Your task to perform on an android device: Do I have any events today? Image 0: 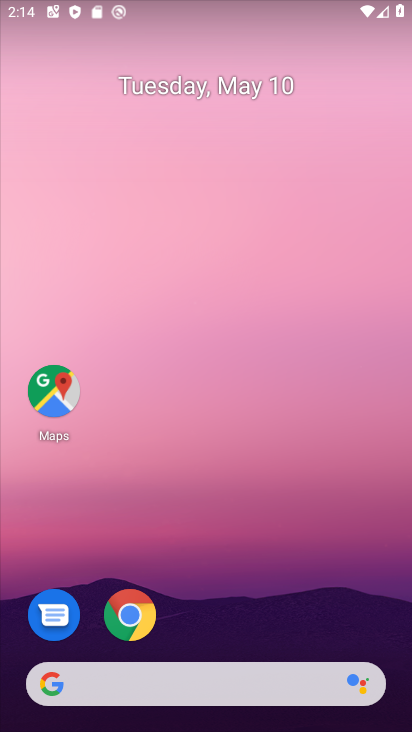
Step 0: drag from (289, 584) to (288, 156)
Your task to perform on an android device: Do I have any events today? Image 1: 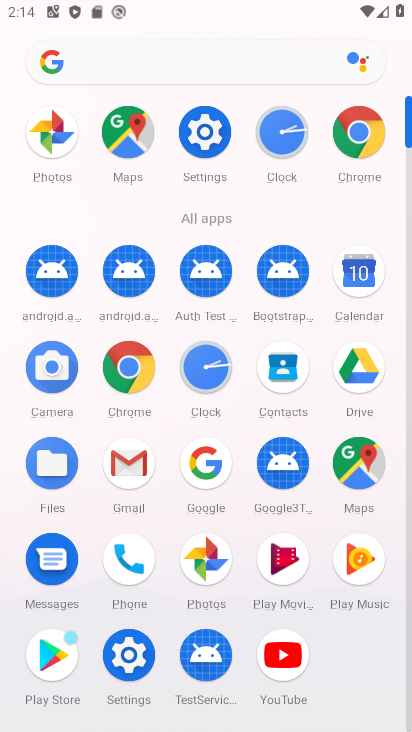
Step 1: click (359, 272)
Your task to perform on an android device: Do I have any events today? Image 2: 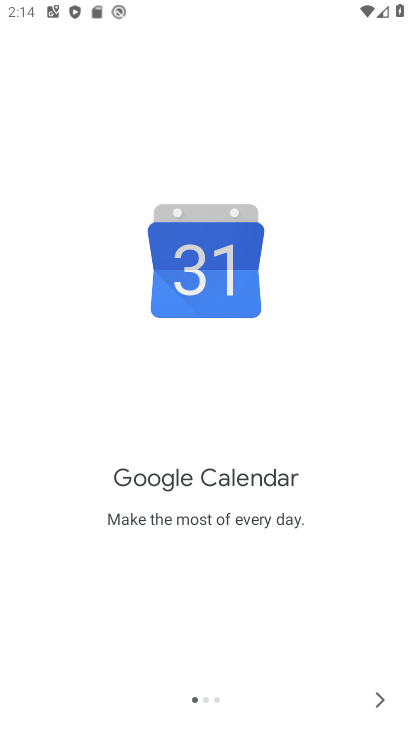
Step 2: click (380, 699)
Your task to perform on an android device: Do I have any events today? Image 3: 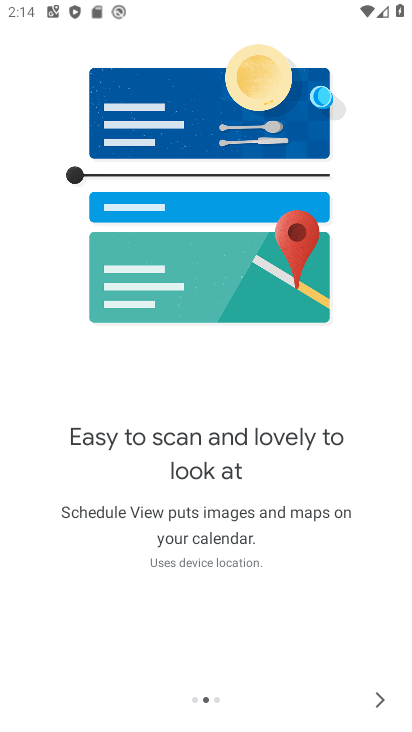
Step 3: click (380, 699)
Your task to perform on an android device: Do I have any events today? Image 4: 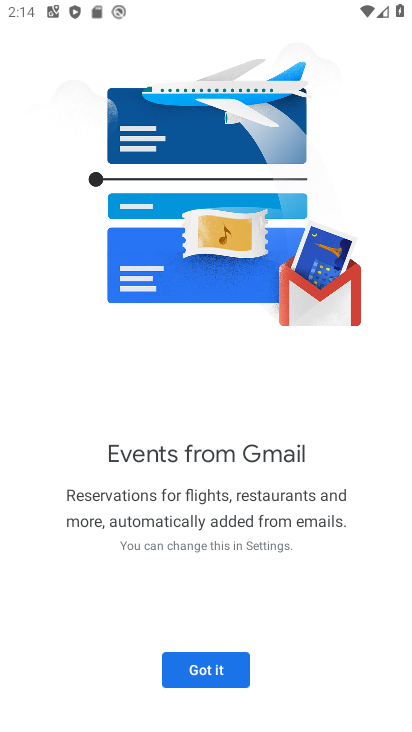
Step 4: click (218, 676)
Your task to perform on an android device: Do I have any events today? Image 5: 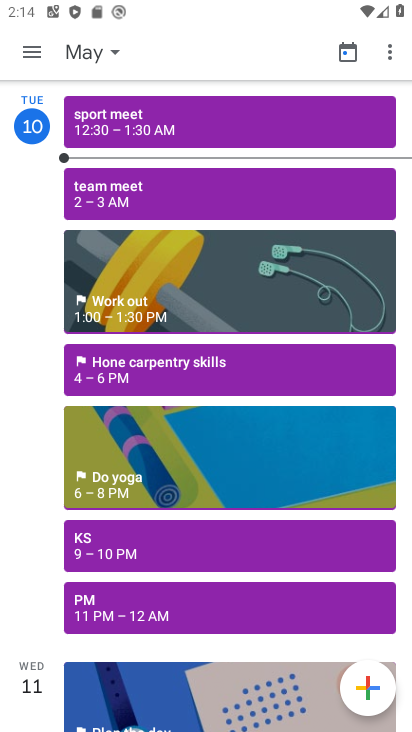
Step 5: click (96, 61)
Your task to perform on an android device: Do I have any events today? Image 6: 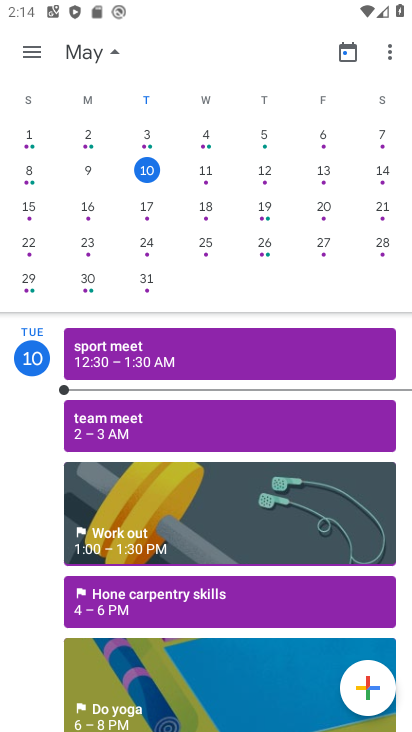
Step 6: click (141, 166)
Your task to perform on an android device: Do I have any events today? Image 7: 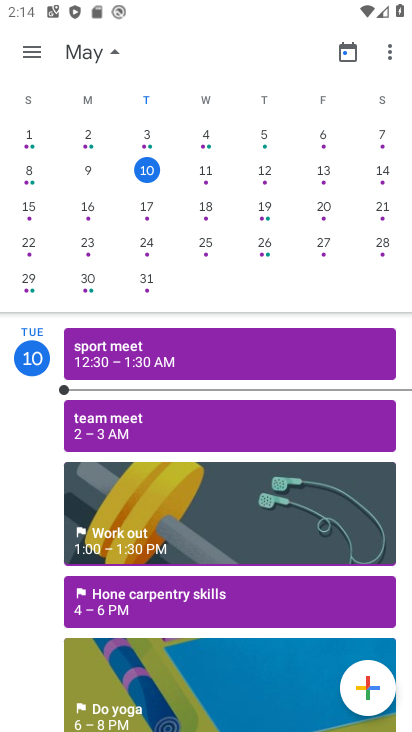
Step 7: task complete